Your task to perform on an android device: check the backup settings in the google photos Image 0: 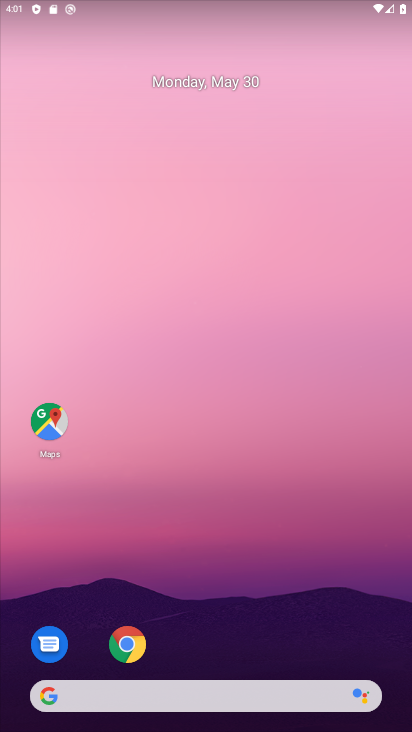
Step 0: drag from (224, 611) to (189, 168)
Your task to perform on an android device: check the backup settings in the google photos Image 1: 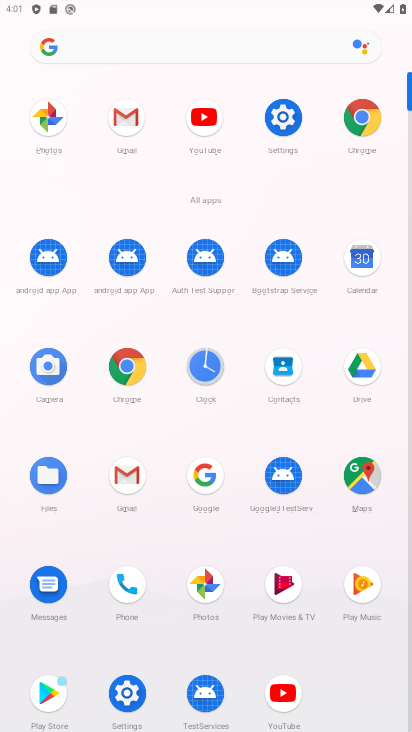
Step 1: click (41, 102)
Your task to perform on an android device: check the backup settings in the google photos Image 2: 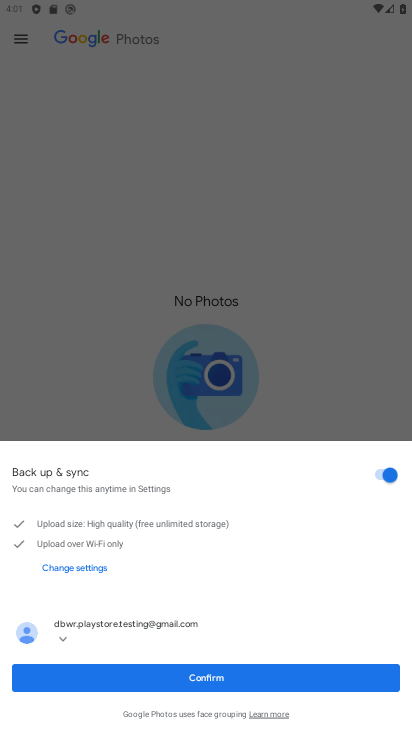
Step 2: click (74, 559)
Your task to perform on an android device: check the backup settings in the google photos Image 3: 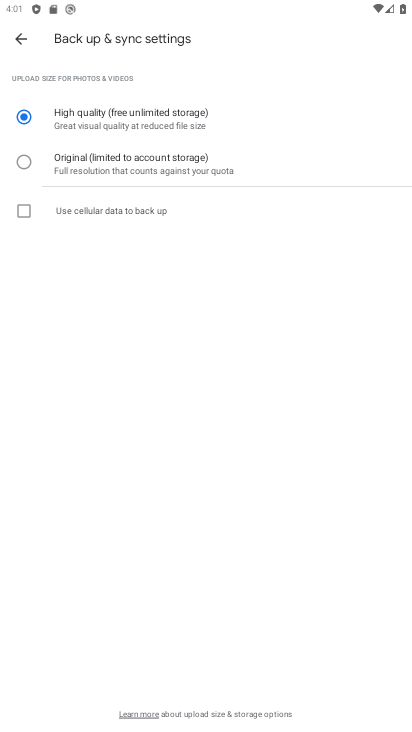
Step 3: click (79, 149)
Your task to perform on an android device: check the backup settings in the google photos Image 4: 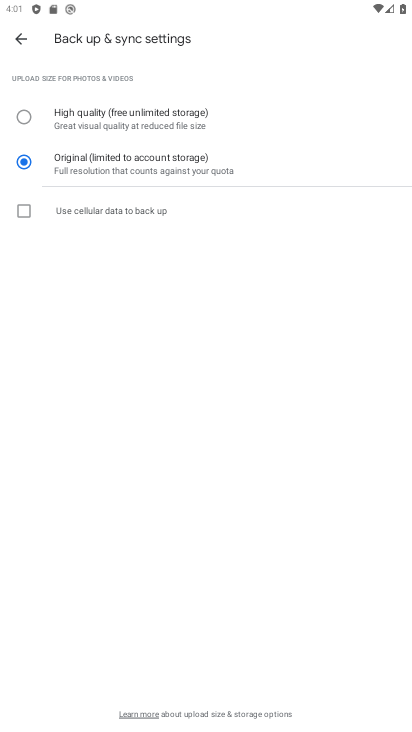
Step 4: task complete